Your task to perform on an android device: uninstall "WhatsApp Messenger" Image 0: 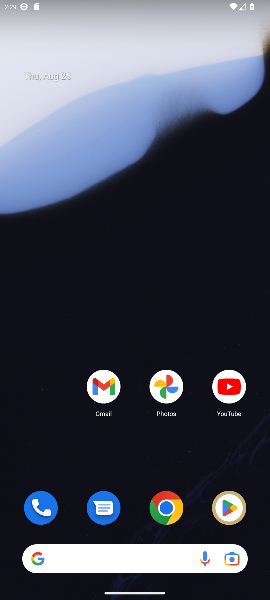
Step 0: click (228, 507)
Your task to perform on an android device: uninstall "WhatsApp Messenger" Image 1: 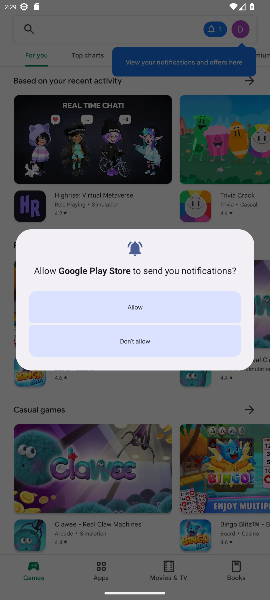
Step 1: click (144, 341)
Your task to perform on an android device: uninstall "WhatsApp Messenger" Image 2: 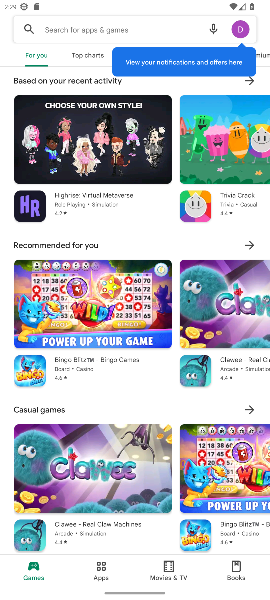
Step 2: click (169, 27)
Your task to perform on an android device: uninstall "WhatsApp Messenger" Image 3: 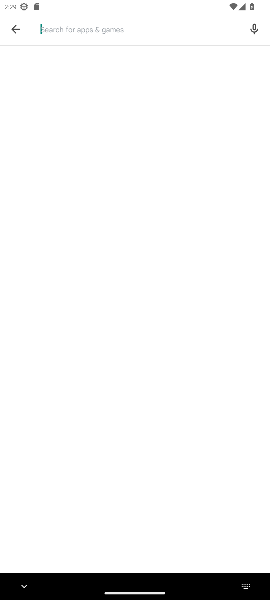
Step 3: type "WhatsApp Messenger"
Your task to perform on an android device: uninstall "WhatsApp Messenger" Image 4: 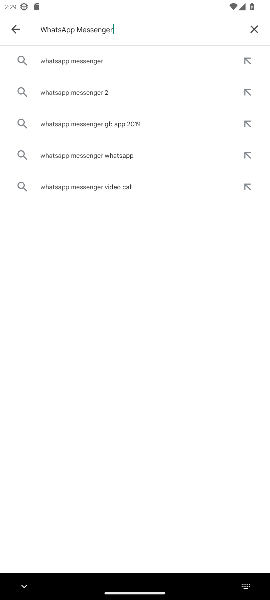
Step 4: click (66, 62)
Your task to perform on an android device: uninstall "WhatsApp Messenger" Image 5: 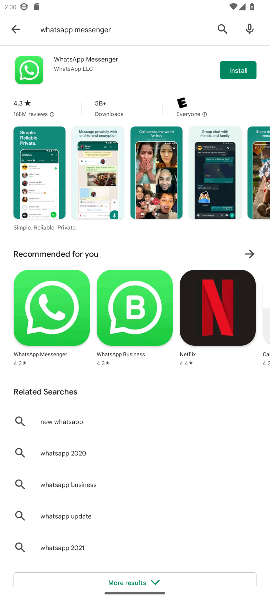
Step 5: task complete